Your task to perform on an android device: delete the emails in spam in the gmail app Image 0: 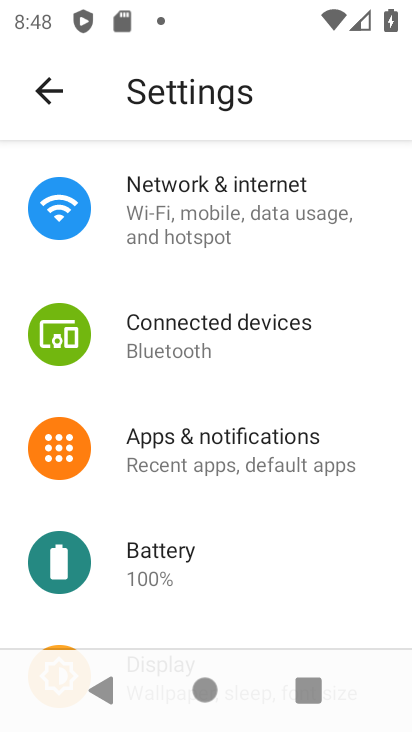
Step 0: drag from (263, 585) to (276, 142)
Your task to perform on an android device: delete the emails in spam in the gmail app Image 1: 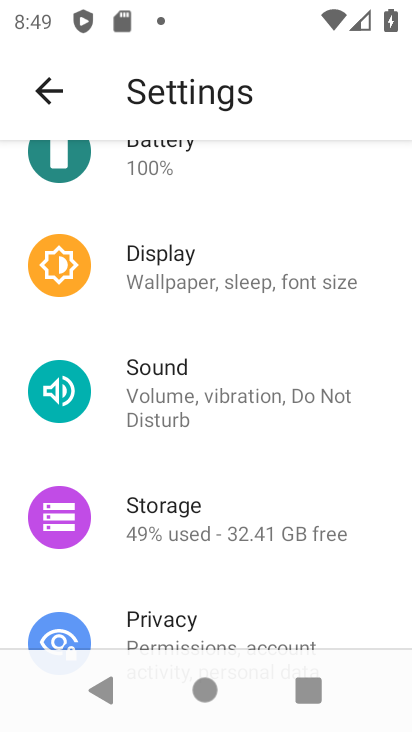
Step 1: drag from (291, 200) to (303, 623)
Your task to perform on an android device: delete the emails in spam in the gmail app Image 2: 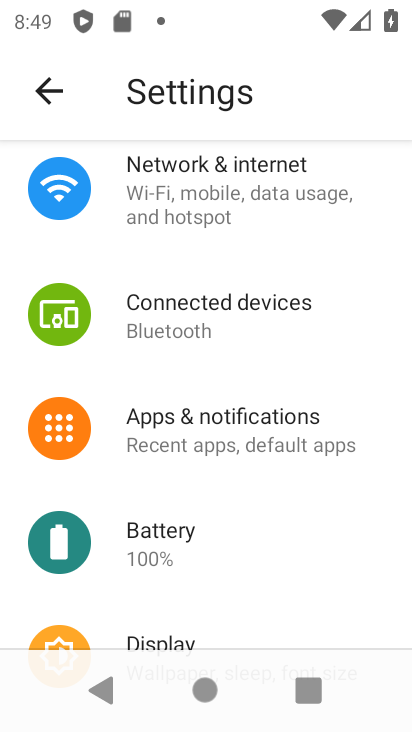
Step 2: drag from (327, 239) to (331, 533)
Your task to perform on an android device: delete the emails in spam in the gmail app Image 3: 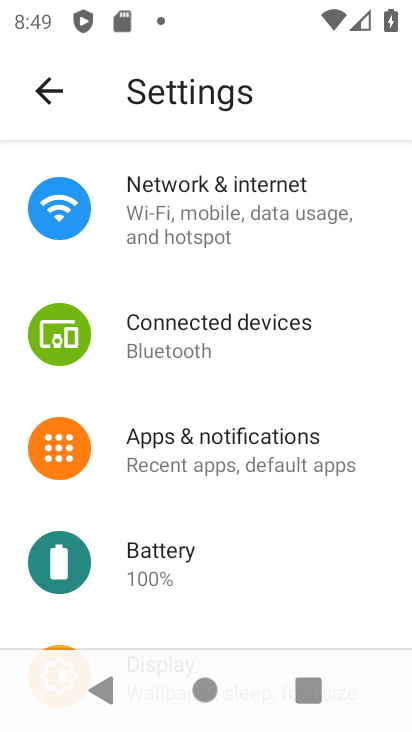
Step 3: click (42, 90)
Your task to perform on an android device: delete the emails in spam in the gmail app Image 4: 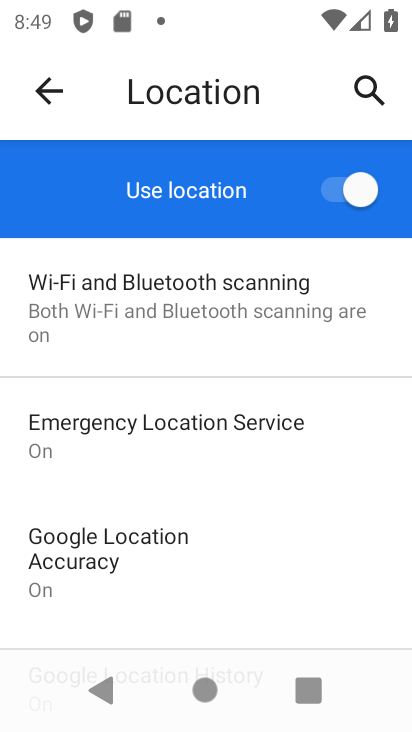
Step 4: click (48, 80)
Your task to perform on an android device: delete the emails in spam in the gmail app Image 5: 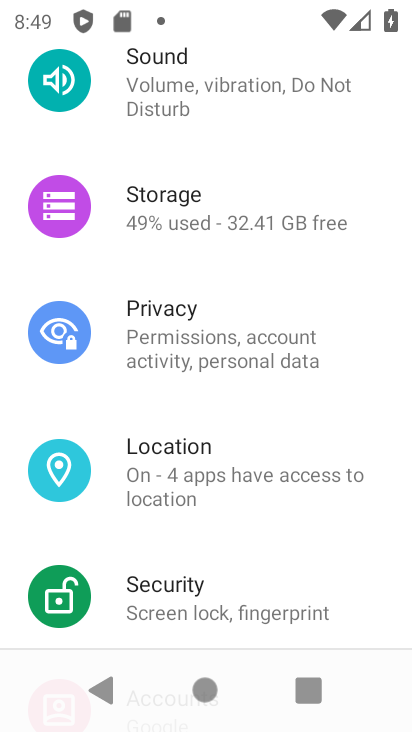
Step 5: press home button
Your task to perform on an android device: delete the emails in spam in the gmail app Image 6: 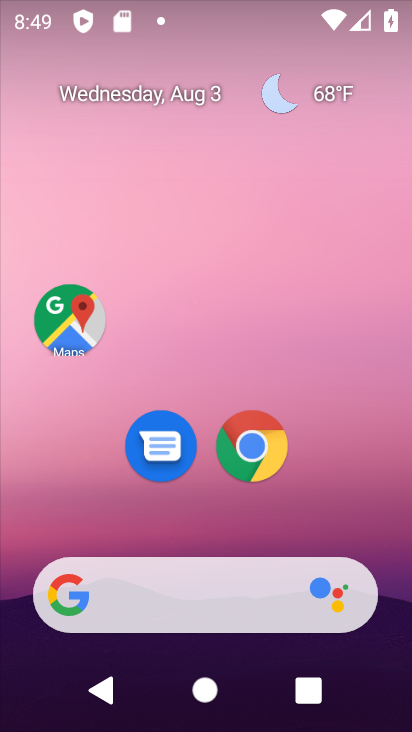
Step 6: drag from (342, 692) to (285, 128)
Your task to perform on an android device: delete the emails in spam in the gmail app Image 7: 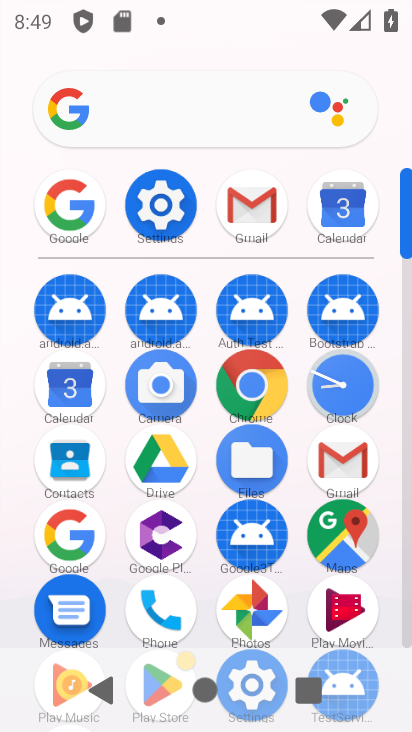
Step 7: click (338, 462)
Your task to perform on an android device: delete the emails in spam in the gmail app Image 8: 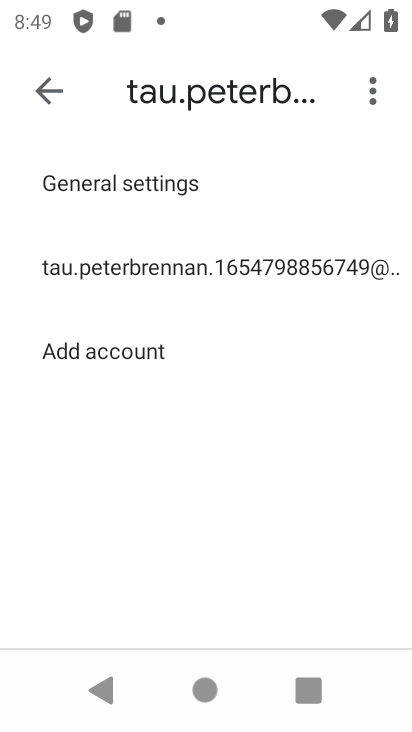
Step 8: click (70, 85)
Your task to perform on an android device: delete the emails in spam in the gmail app Image 9: 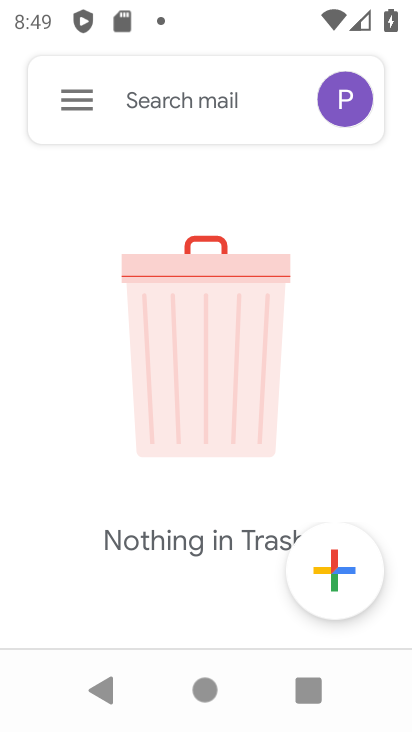
Step 9: click (75, 98)
Your task to perform on an android device: delete the emails in spam in the gmail app Image 10: 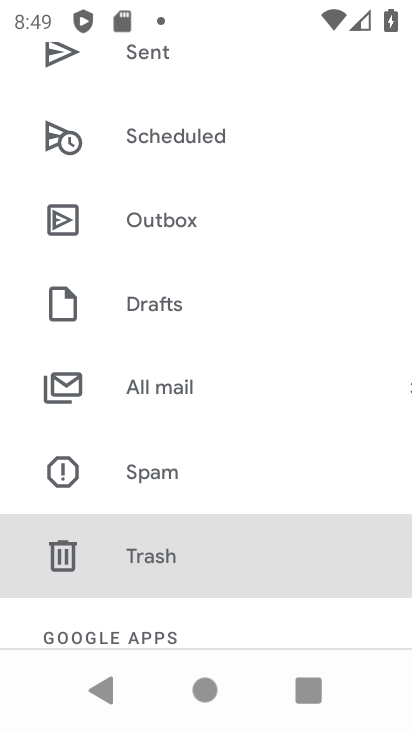
Step 10: drag from (298, 121) to (301, 560)
Your task to perform on an android device: delete the emails in spam in the gmail app Image 11: 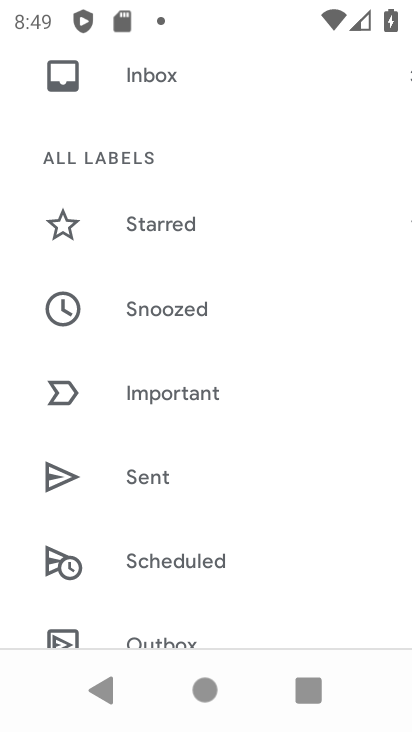
Step 11: drag from (286, 583) to (286, 218)
Your task to perform on an android device: delete the emails in spam in the gmail app Image 12: 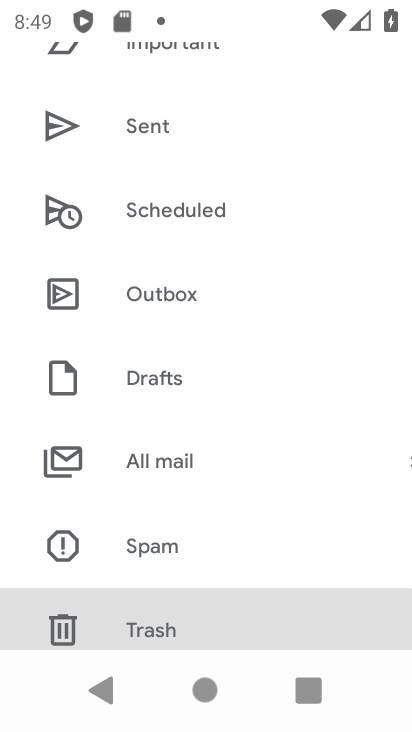
Step 12: click (154, 555)
Your task to perform on an android device: delete the emails in spam in the gmail app Image 13: 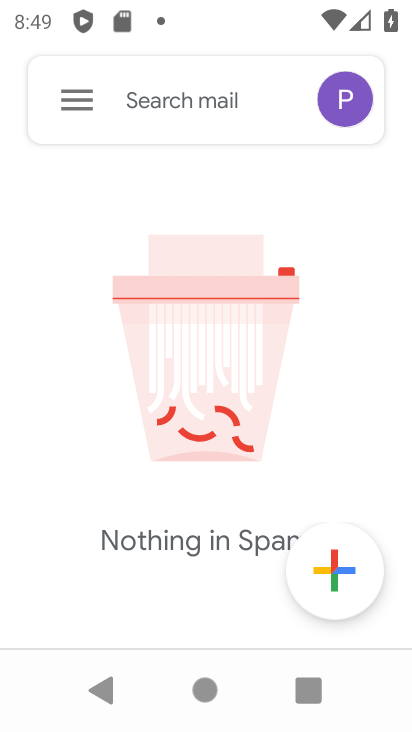
Step 13: task complete